Your task to perform on an android device: Open Yahoo.com Image 0: 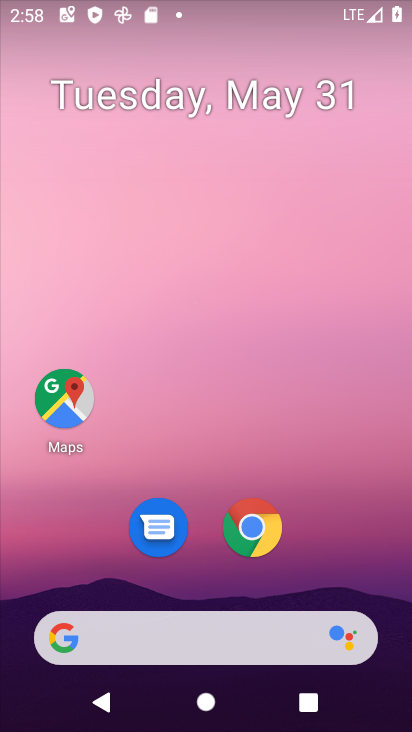
Step 0: drag from (398, 488) to (397, 392)
Your task to perform on an android device: Open Yahoo.com Image 1: 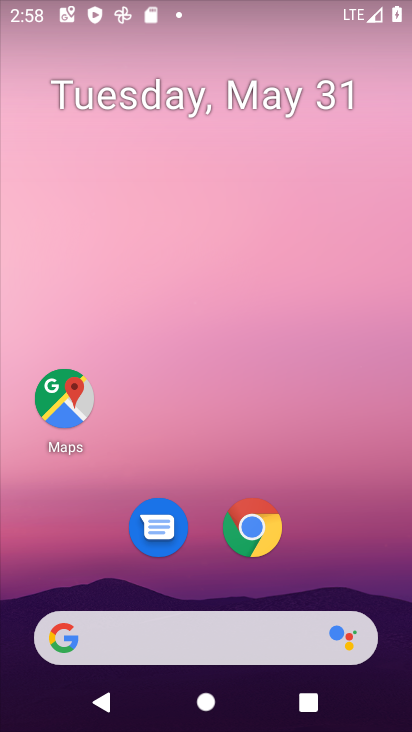
Step 1: drag from (396, 438) to (370, 14)
Your task to perform on an android device: Open Yahoo.com Image 2: 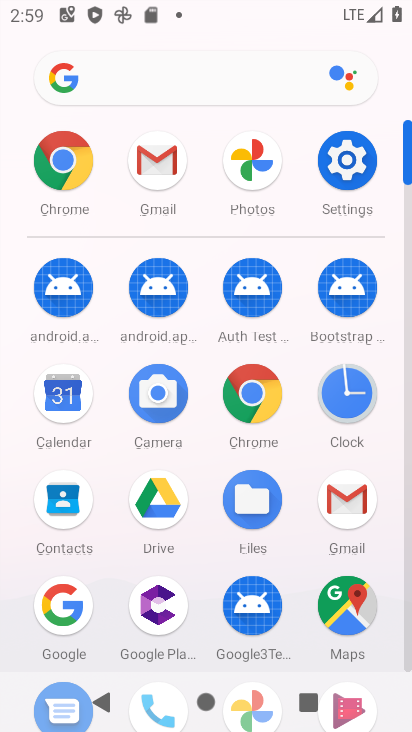
Step 2: click (89, 164)
Your task to perform on an android device: Open Yahoo.com Image 3: 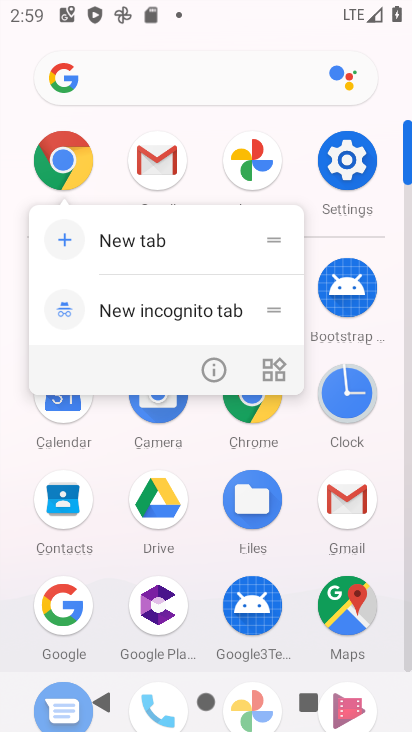
Step 3: click (43, 169)
Your task to perform on an android device: Open Yahoo.com Image 4: 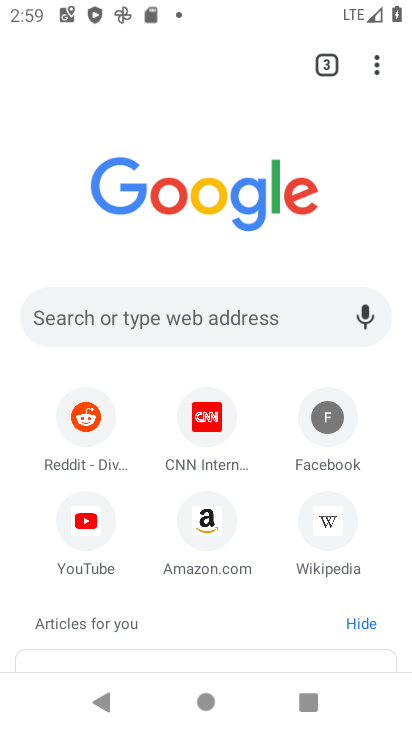
Step 4: drag from (369, 502) to (397, 229)
Your task to perform on an android device: Open Yahoo.com Image 5: 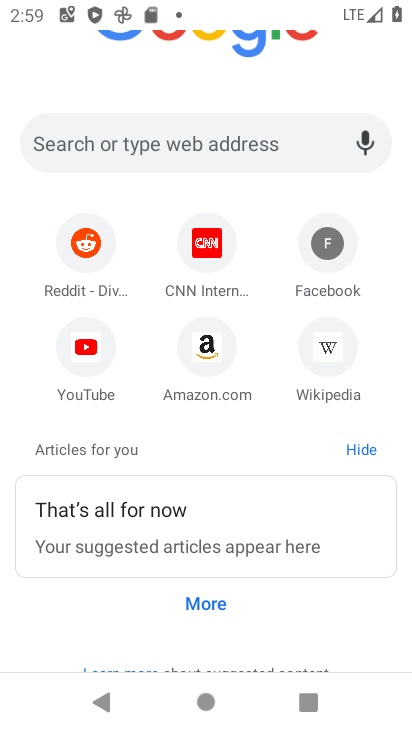
Step 5: click (231, 156)
Your task to perform on an android device: Open Yahoo.com Image 6: 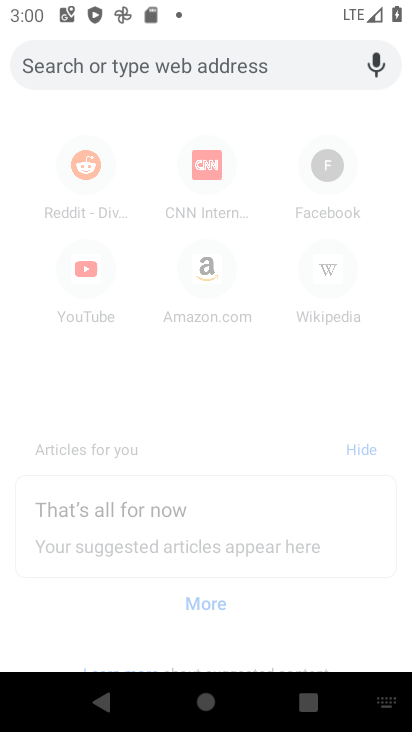
Step 6: type "yahoo"
Your task to perform on an android device: Open Yahoo.com Image 7: 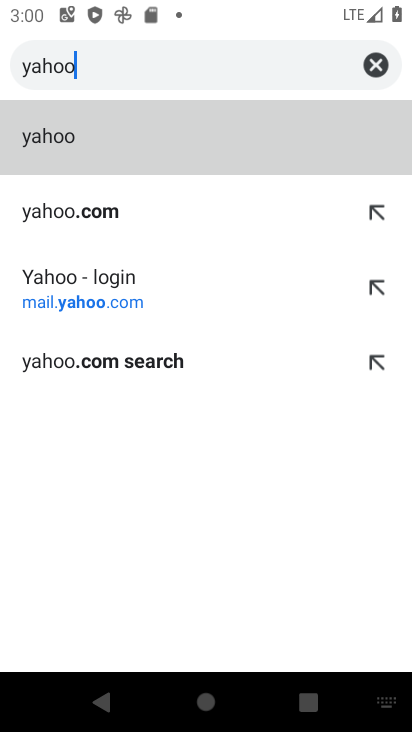
Step 7: click (82, 210)
Your task to perform on an android device: Open Yahoo.com Image 8: 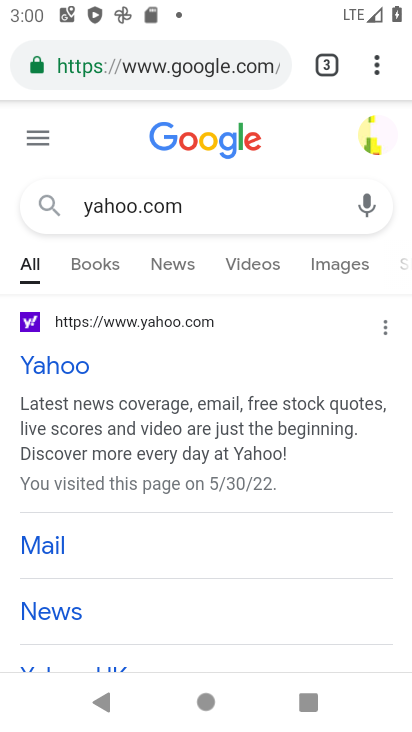
Step 8: click (82, 367)
Your task to perform on an android device: Open Yahoo.com Image 9: 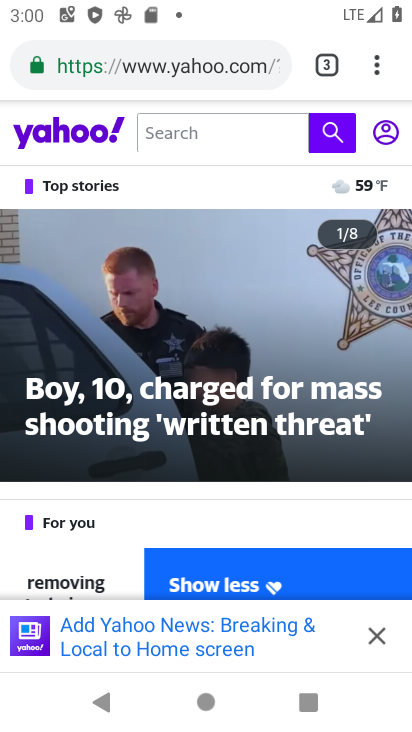
Step 9: task complete